Your task to perform on an android device: Search for the best 4K TV Image 0: 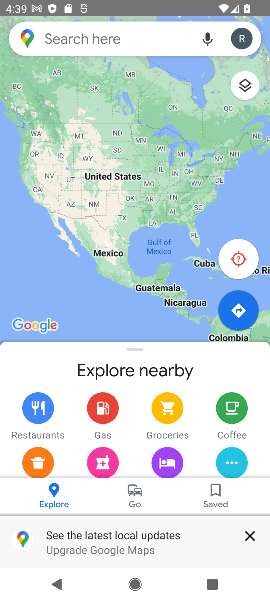
Step 0: press home button
Your task to perform on an android device: Search for the best 4K TV Image 1: 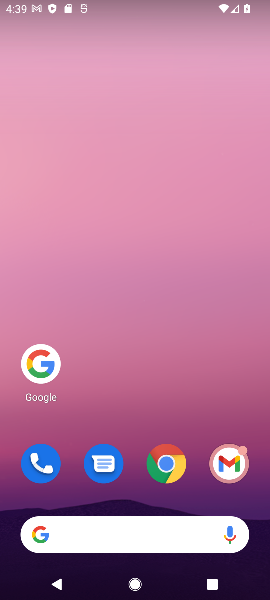
Step 1: click (39, 358)
Your task to perform on an android device: Search for the best 4K TV Image 2: 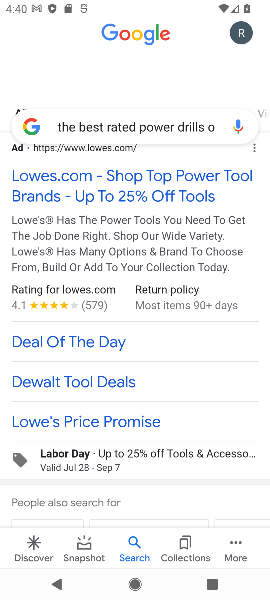
Step 2: click (142, 128)
Your task to perform on an android device: Search for the best 4K TV Image 3: 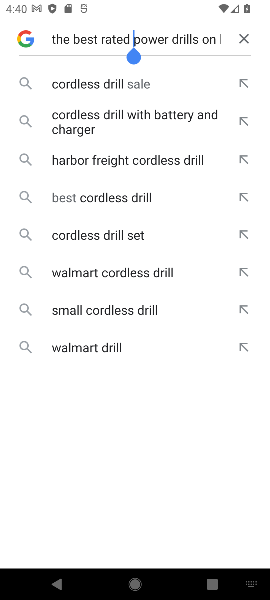
Step 3: click (250, 31)
Your task to perform on an android device: Search for the best 4K TV Image 4: 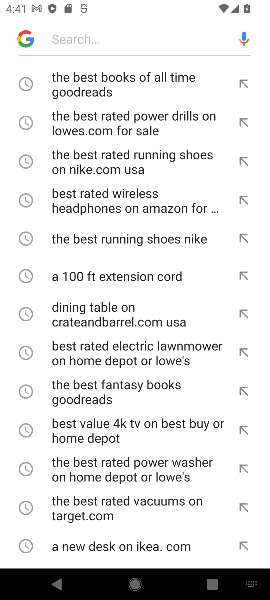
Step 4: click (92, 33)
Your task to perform on an android device: Search for the best 4K TV Image 5: 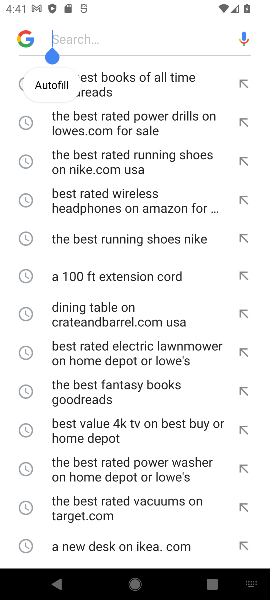
Step 5: type "the best 4K TV "
Your task to perform on an android device: Search for the best 4K TV Image 6: 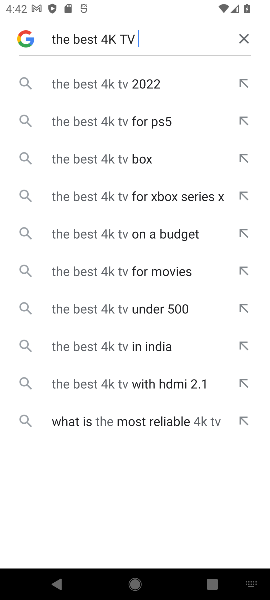
Step 6: click (105, 83)
Your task to perform on an android device: Search for the best 4K TV Image 7: 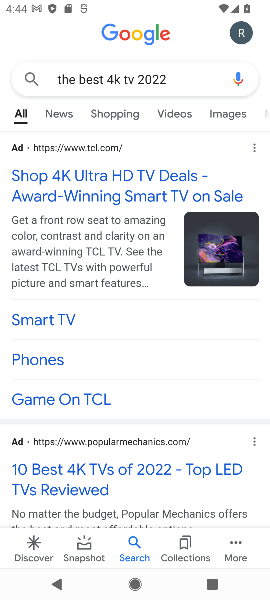
Step 7: task complete